Your task to perform on an android device: turn pop-ups on in chrome Image 0: 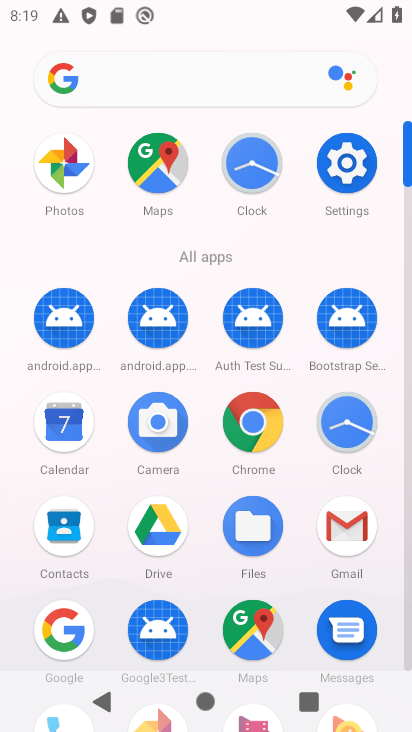
Step 0: click (274, 446)
Your task to perform on an android device: turn pop-ups on in chrome Image 1: 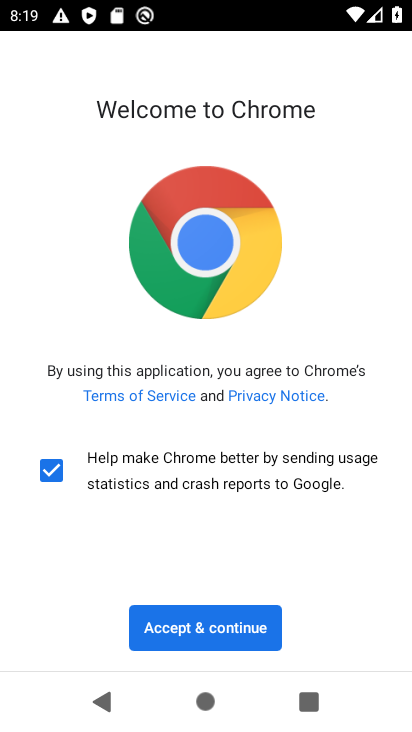
Step 1: click (195, 607)
Your task to perform on an android device: turn pop-ups on in chrome Image 2: 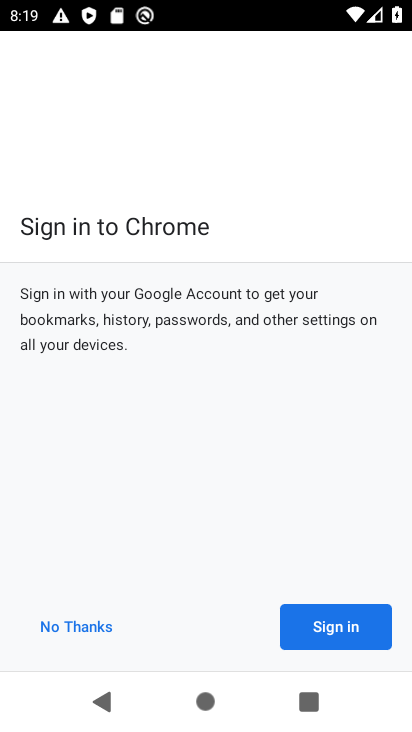
Step 2: click (339, 629)
Your task to perform on an android device: turn pop-ups on in chrome Image 3: 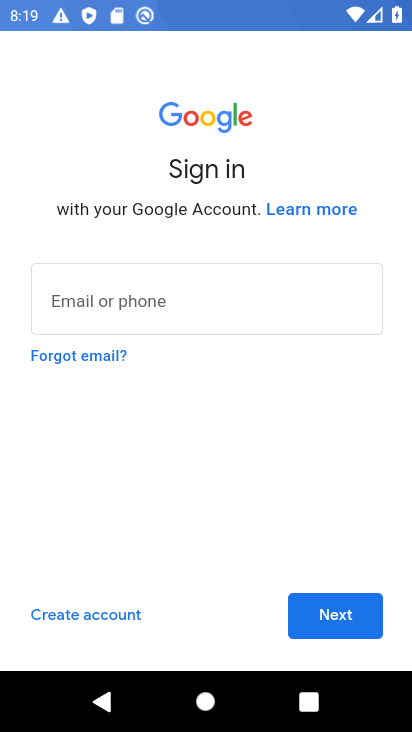
Step 3: task complete